Your task to perform on an android device: Look up the best rated bike seats on Target Image 0: 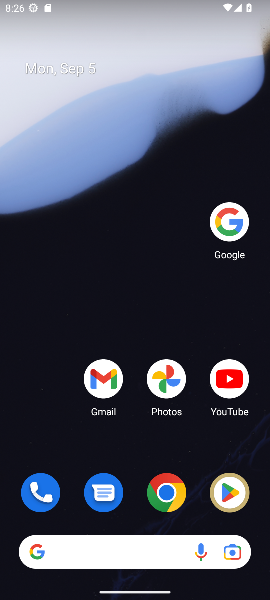
Step 0: click (230, 224)
Your task to perform on an android device: Look up the best rated bike seats on Target Image 1: 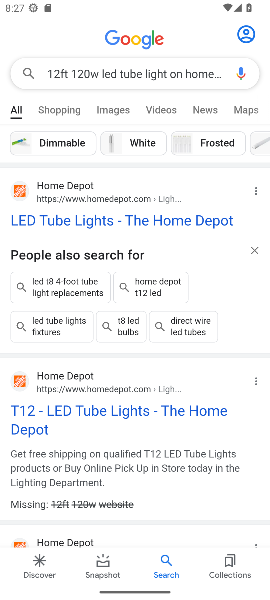
Step 1: task complete